Your task to perform on an android device: manage bookmarks in the chrome app Image 0: 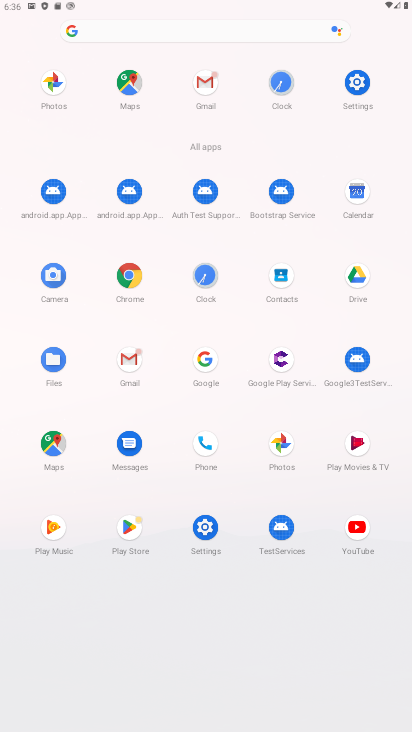
Step 0: click (117, 281)
Your task to perform on an android device: manage bookmarks in the chrome app Image 1: 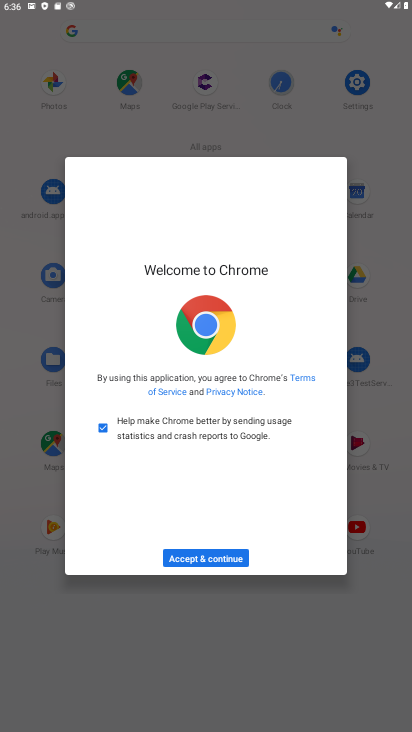
Step 1: click (194, 568)
Your task to perform on an android device: manage bookmarks in the chrome app Image 2: 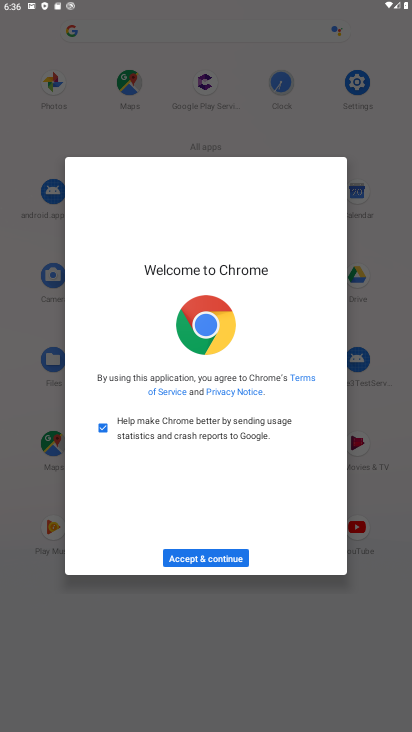
Step 2: click (202, 560)
Your task to perform on an android device: manage bookmarks in the chrome app Image 3: 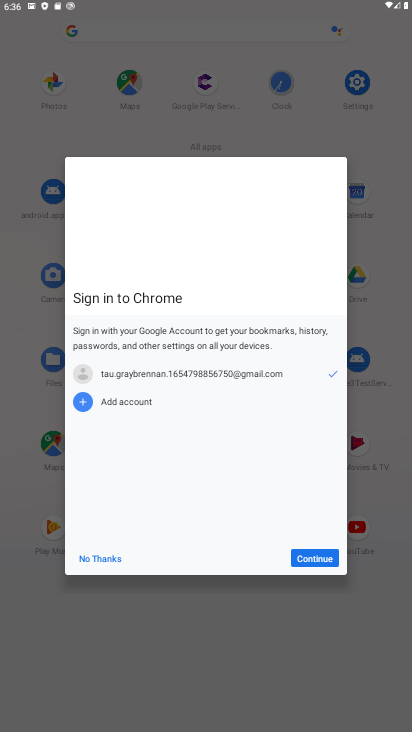
Step 3: click (306, 561)
Your task to perform on an android device: manage bookmarks in the chrome app Image 4: 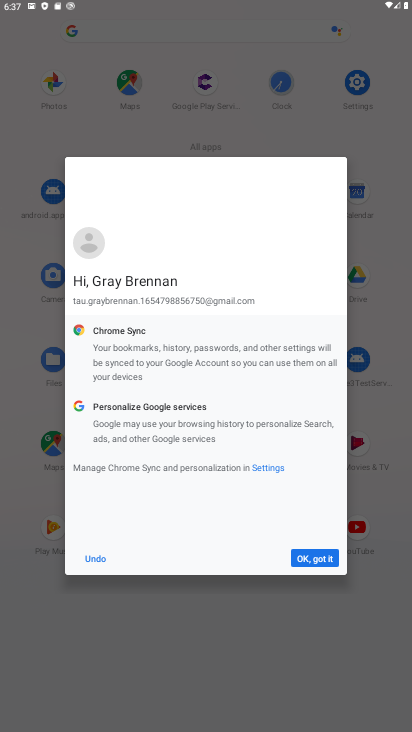
Step 4: click (306, 561)
Your task to perform on an android device: manage bookmarks in the chrome app Image 5: 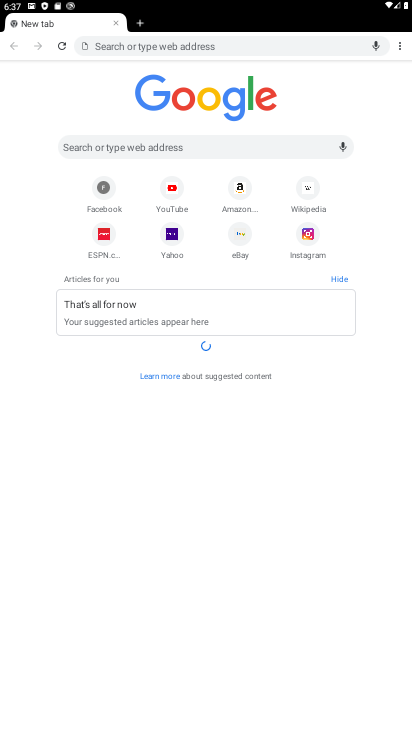
Step 5: click (398, 43)
Your task to perform on an android device: manage bookmarks in the chrome app Image 6: 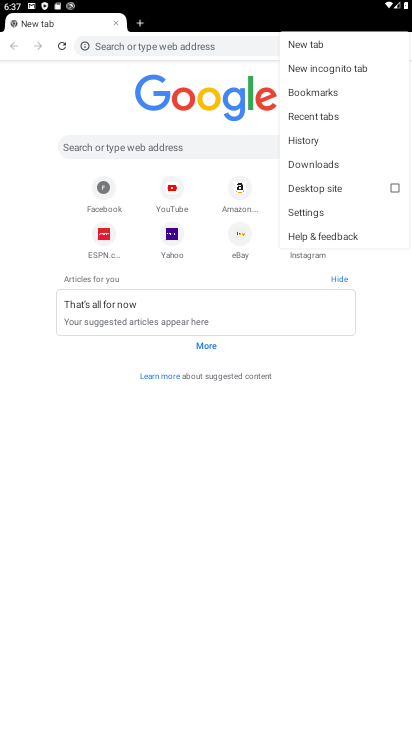
Step 6: click (308, 96)
Your task to perform on an android device: manage bookmarks in the chrome app Image 7: 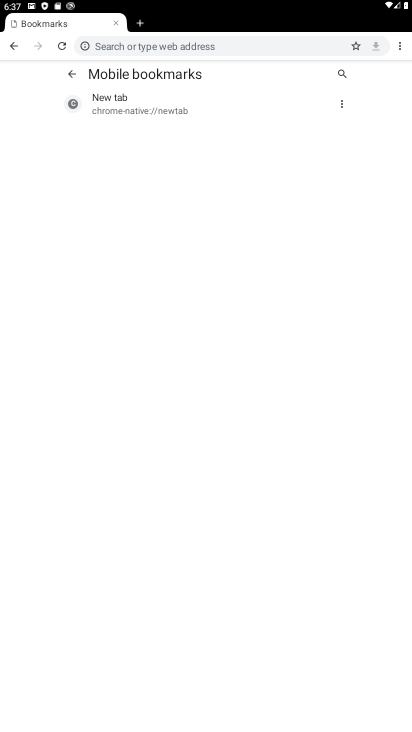
Step 7: task complete